Your task to perform on an android device: turn off notifications in google photos Image 0: 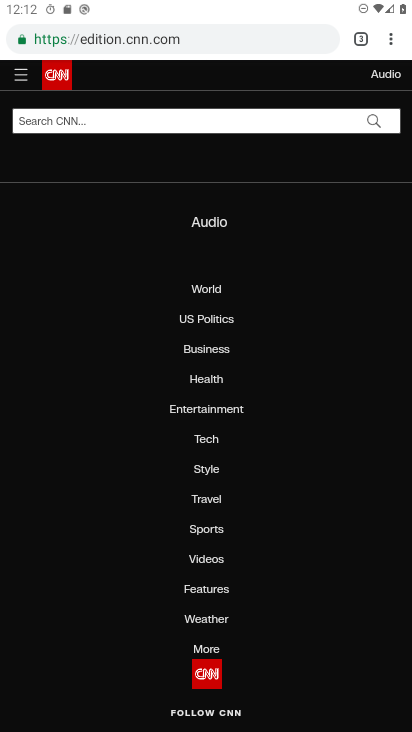
Step 0: press home button
Your task to perform on an android device: turn off notifications in google photos Image 1: 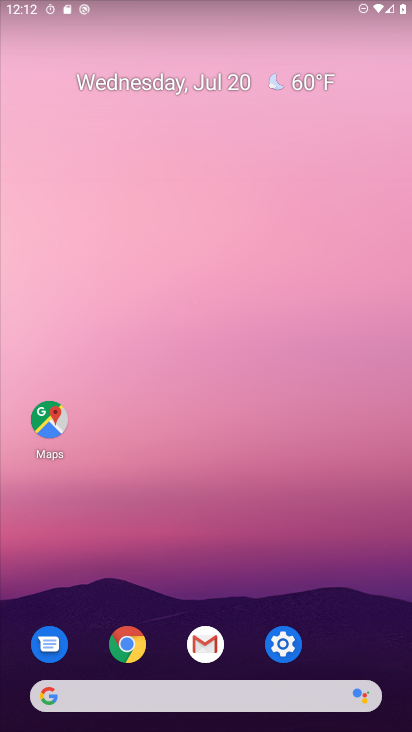
Step 1: drag from (283, 701) to (308, 342)
Your task to perform on an android device: turn off notifications in google photos Image 2: 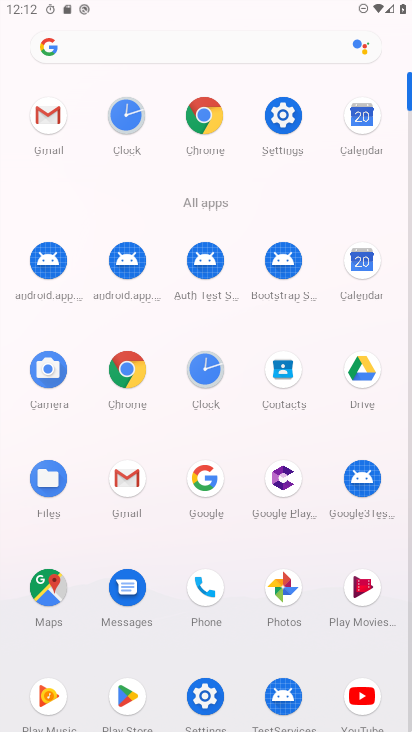
Step 2: click (290, 577)
Your task to perform on an android device: turn off notifications in google photos Image 3: 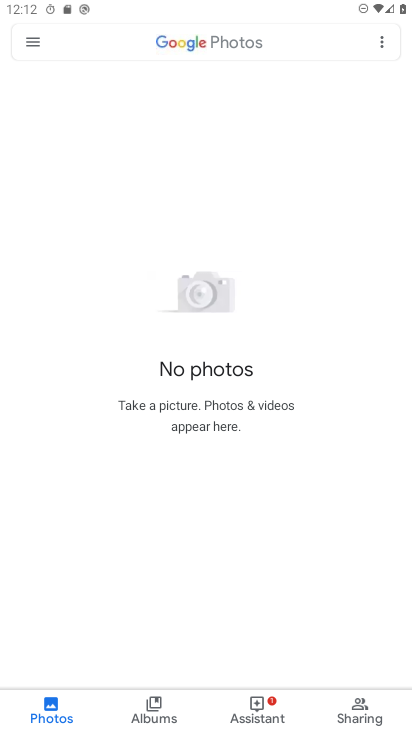
Step 3: click (28, 48)
Your task to perform on an android device: turn off notifications in google photos Image 4: 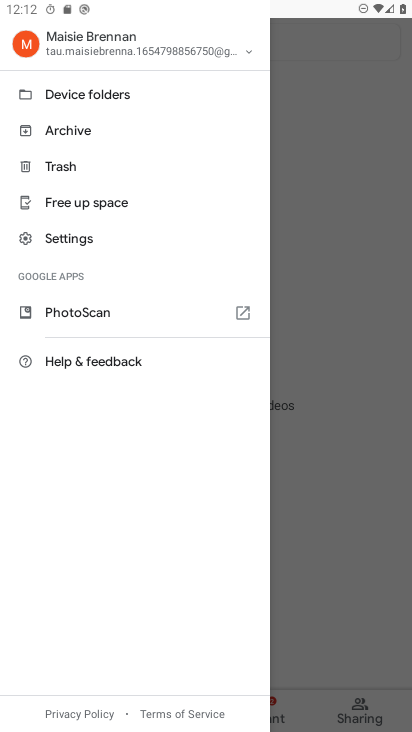
Step 4: click (69, 239)
Your task to perform on an android device: turn off notifications in google photos Image 5: 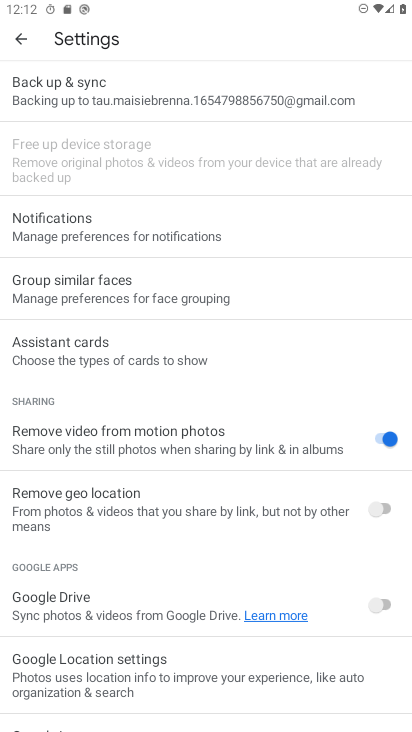
Step 5: click (69, 239)
Your task to perform on an android device: turn off notifications in google photos Image 6: 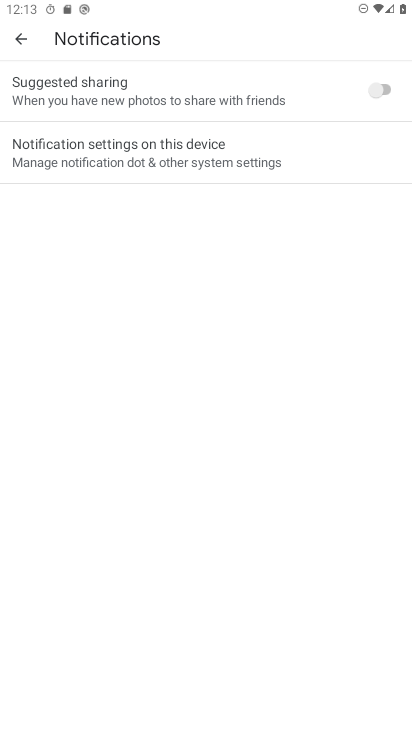
Step 6: click (152, 165)
Your task to perform on an android device: turn off notifications in google photos Image 7: 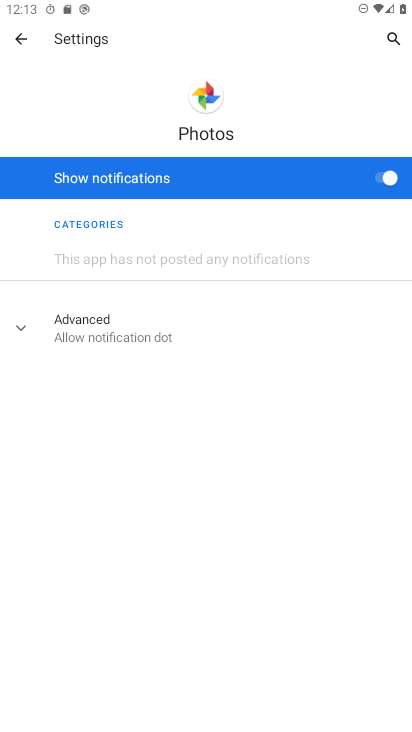
Step 7: click (364, 188)
Your task to perform on an android device: turn off notifications in google photos Image 8: 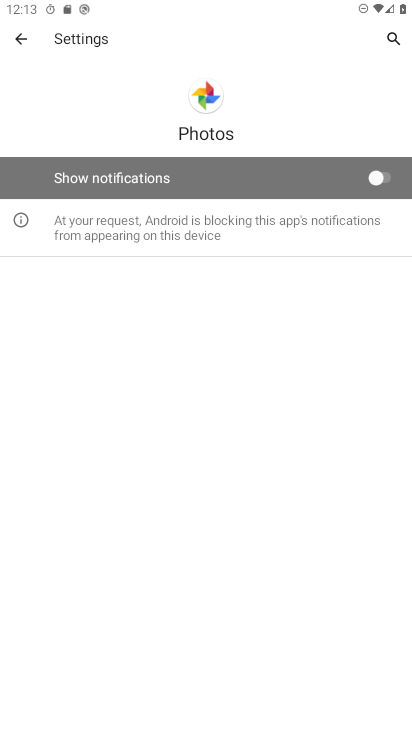
Step 8: task complete